Your task to perform on an android device: When is my next meeting? Image 0: 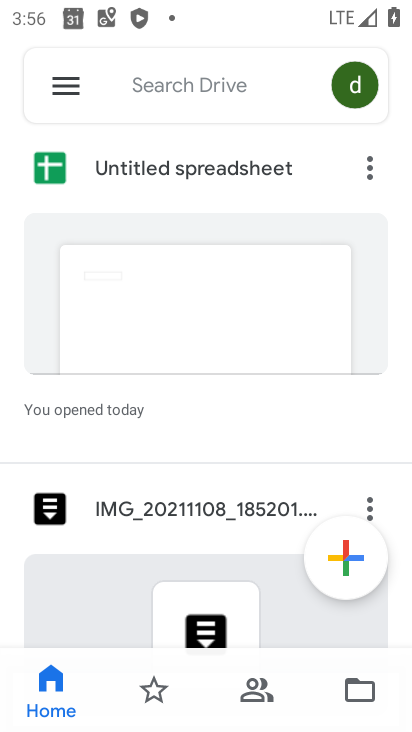
Step 0: press back button
Your task to perform on an android device: When is my next meeting? Image 1: 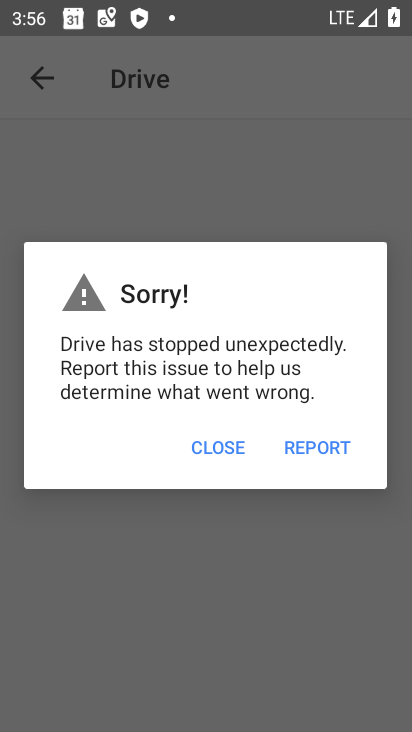
Step 1: press home button
Your task to perform on an android device: When is my next meeting? Image 2: 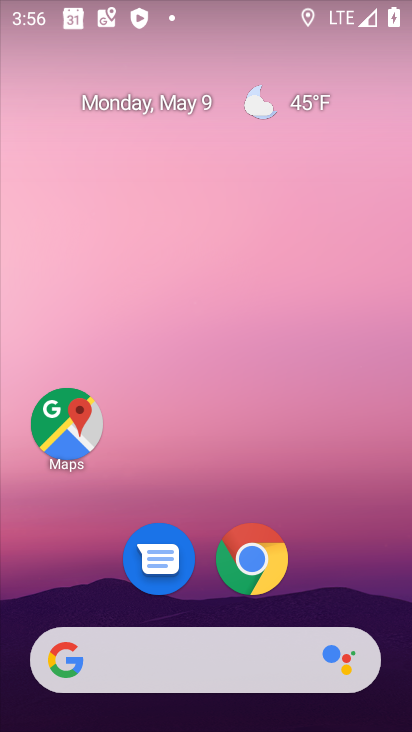
Step 2: drag from (199, 462) to (250, 21)
Your task to perform on an android device: When is my next meeting? Image 3: 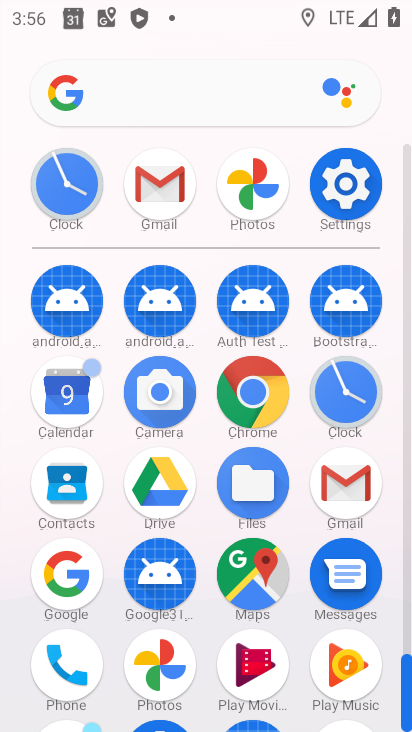
Step 3: click (62, 393)
Your task to perform on an android device: When is my next meeting? Image 4: 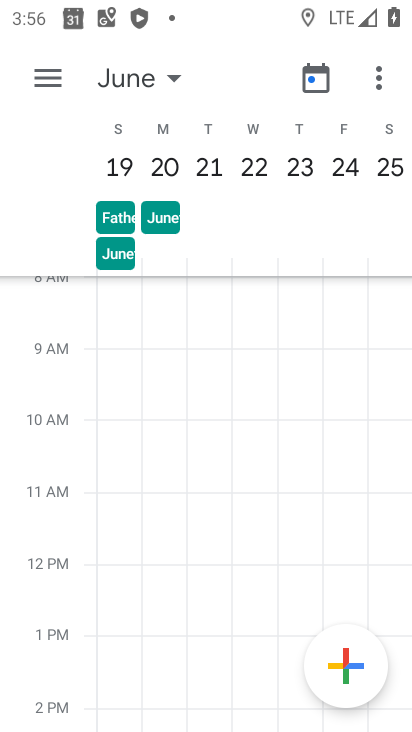
Step 4: click (320, 82)
Your task to perform on an android device: When is my next meeting? Image 5: 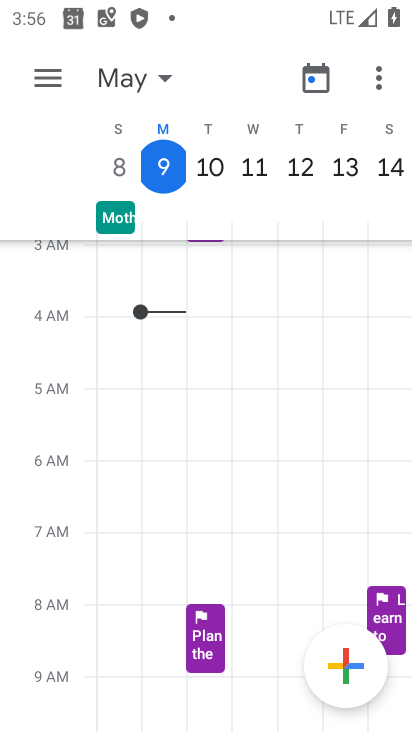
Step 5: click (163, 76)
Your task to perform on an android device: When is my next meeting? Image 6: 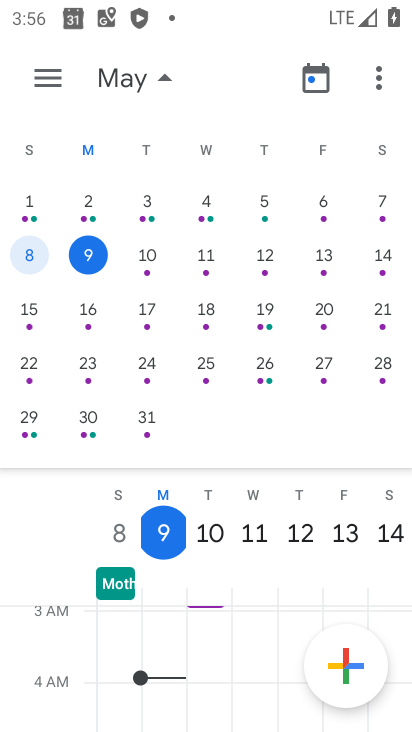
Step 6: click (149, 260)
Your task to perform on an android device: When is my next meeting? Image 7: 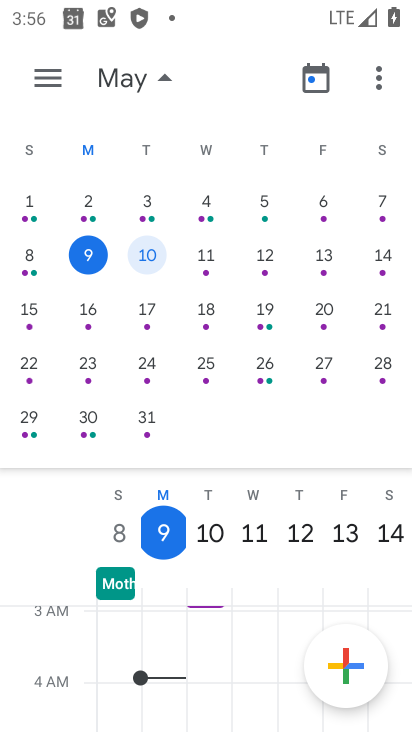
Step 7: click (47, 76)
Your task to perform on an android device: When is my next meeting? Image 8: 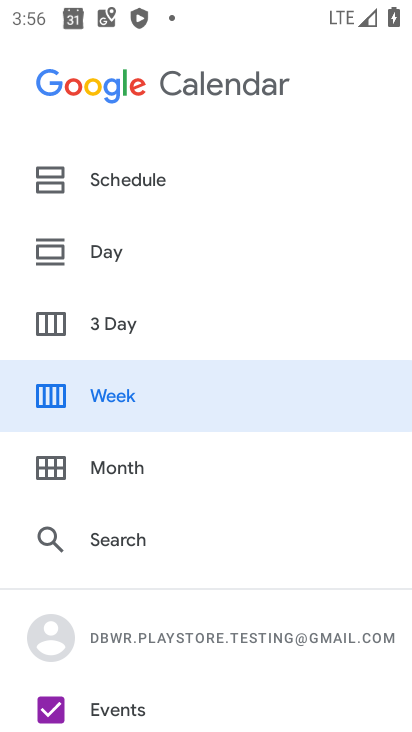
Step 8: click (130, 186)
Your task to perform on an android device: When is my next meeting? Image 9: 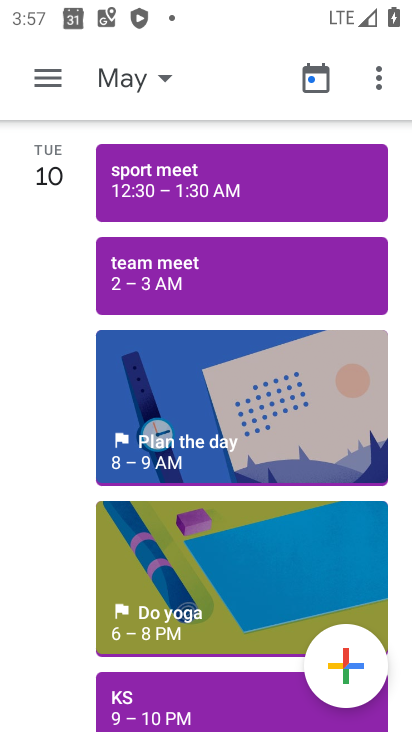
Step 9: task complete